Your task to perform on an android device: toggle airplane mode Image 0: 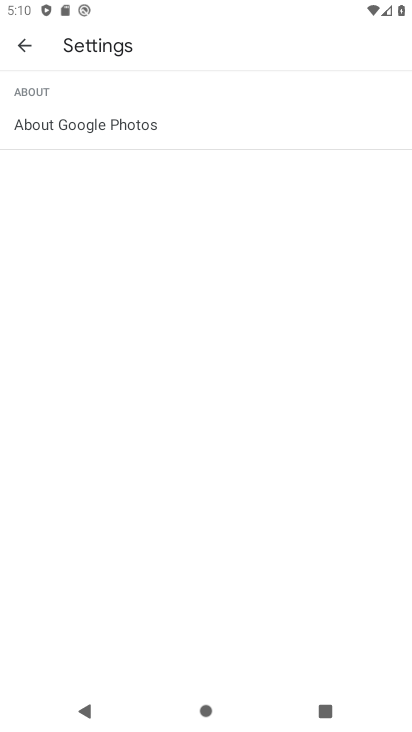
Step 0: press home button
Your task to perform on an android device: toggle airplane mode Image 1: 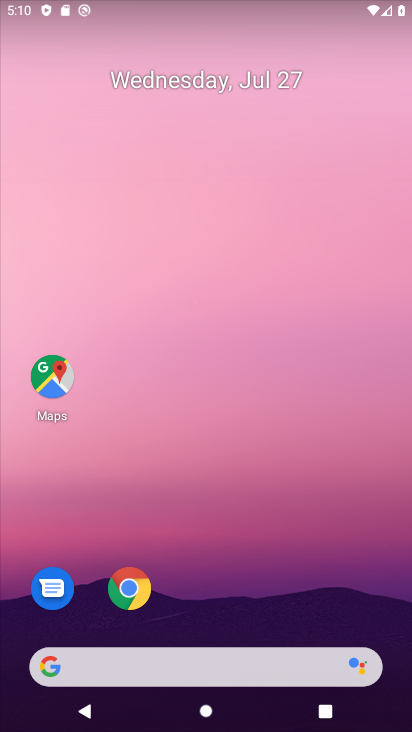
Step 1: drag from (235, 549) to (290, 146)
Your task to perform on an android device: toggle airplane mode Image 2: 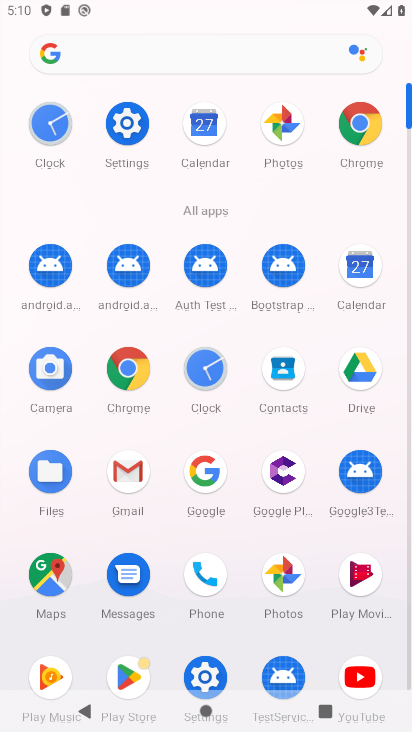
Step 2: click (133, 121)
Your task to perform on an android device: toggle airplane mode Image 3: 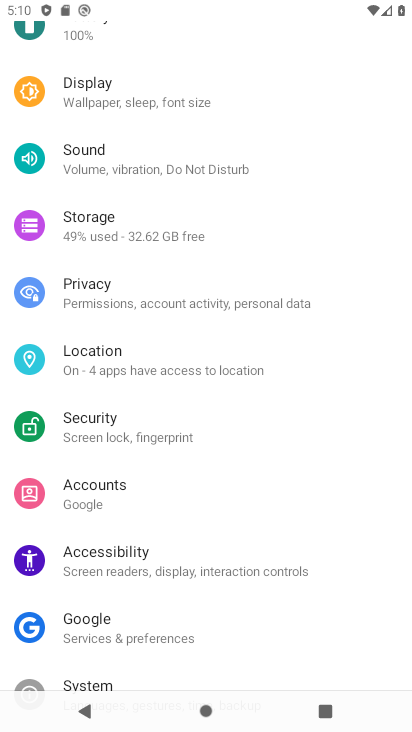
Step 3: drag from (155, 115) to (146, 616)
Your task to perform on an android device: toggle airplane mode Image 4: 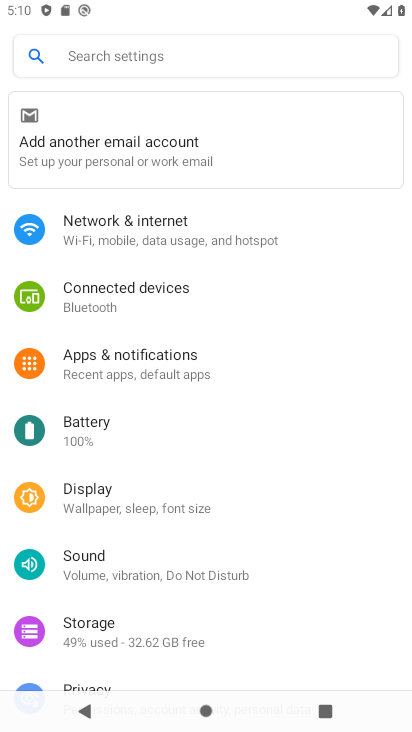
Step 4: click (215, 230)
Your task to perform on an android device: toggle airplane mode Image 5: 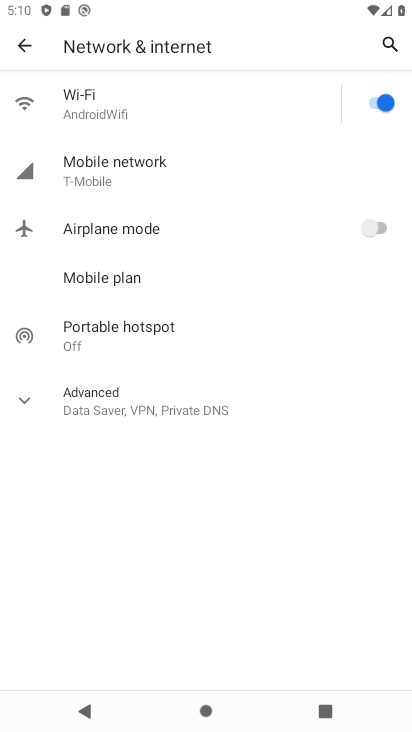
Step 5: click (383, 224)
Your task to perform on an android device: toggle airplane mode Image 6: 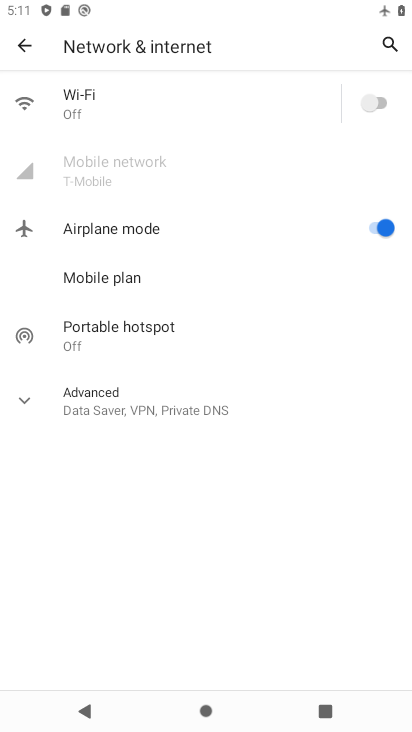
Step 6: task complete